Your task to perform on an android device: turn off priority inbox in the gmail app Image 0: 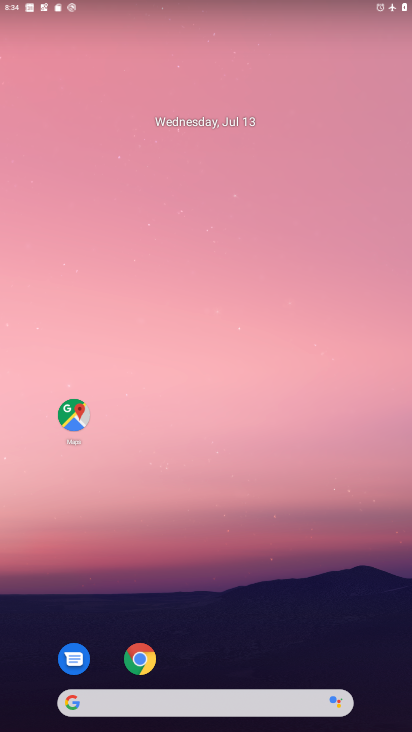
Step 0: drag from (234, 549) to (234, 18)
Your task to perform on an android device: turn off priority inbox in the gmail app Image 1: 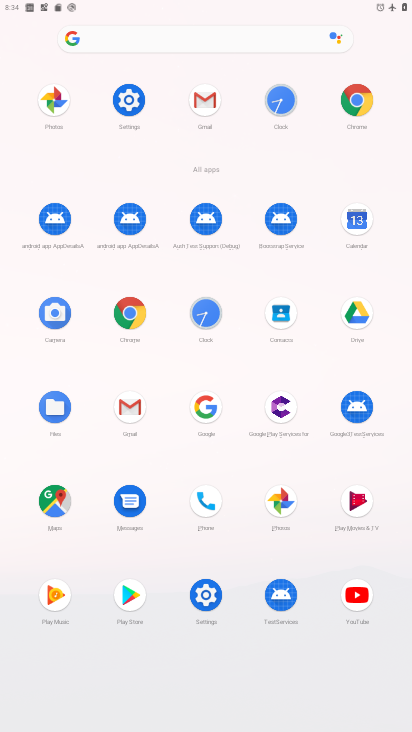
Step 1: click (203, 97)
Your task to perform on an android device: turn off priority inbox in the gmail app Image 2: 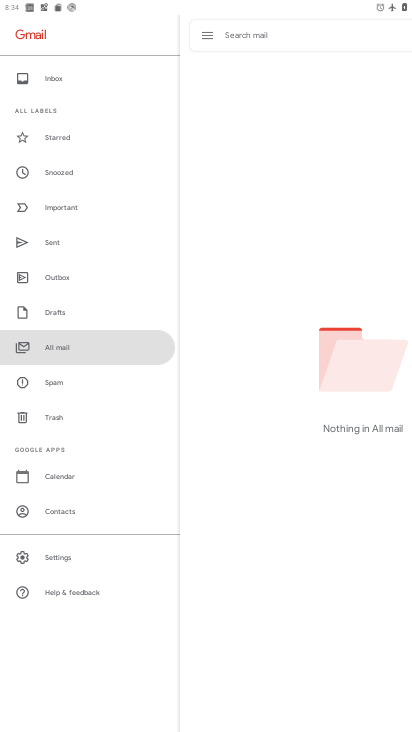
Step 2: click (53, 555)
Your task to perform on an android device: turn off priority inbox in the gmail app Image 3: 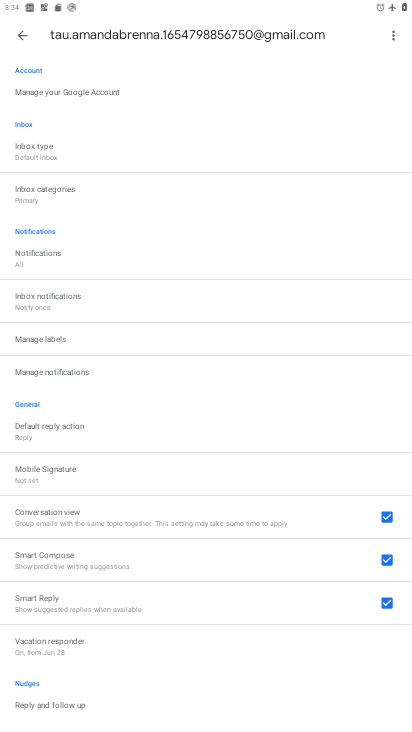
Step 3: click (32, 143)
Your task to perform on an android device: turn off priority inbox in the gmail app Image 4: 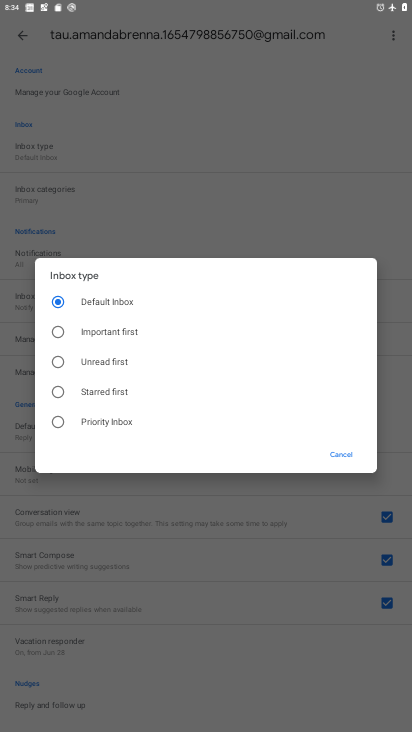
Step 4: task complete